Your task to perform on an android device: See recent photos Image 0: 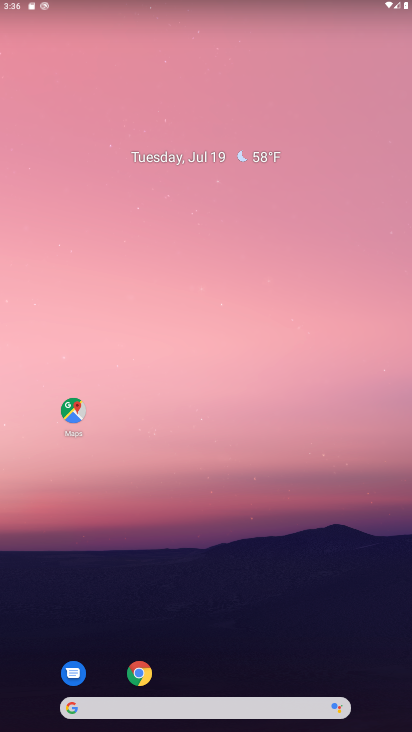
Step 0: drag from (237, 641) to (248, 119)
Your task to perform on an android device: See recent photos Image 1: 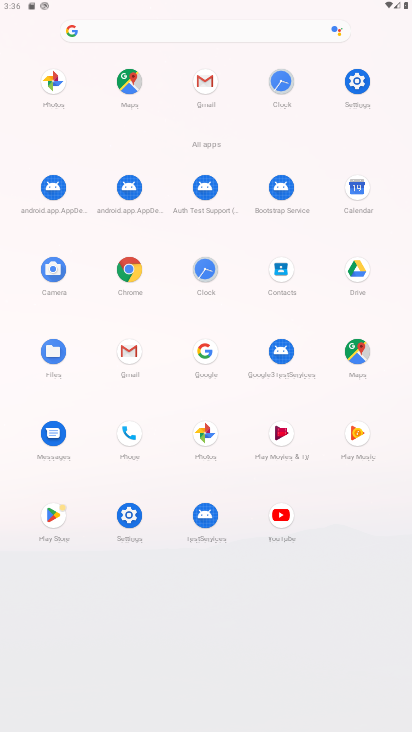
Step 1: click (200, 435)
Your task to perform on an android device: See recent photos Image 2: 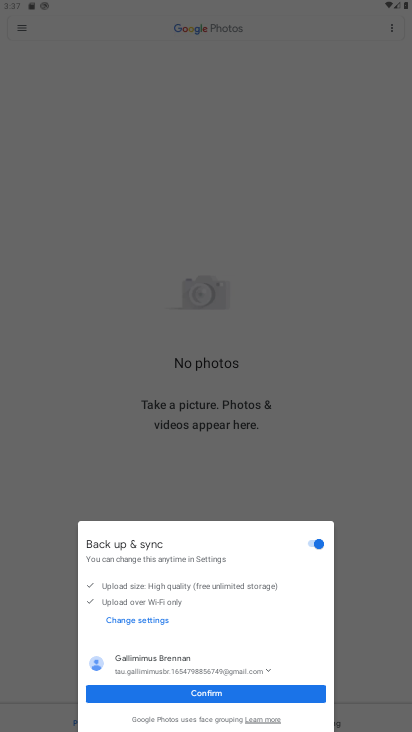
Step 2: click (225, 691)
Your task to perform on an android device: See recent photos Image 3: 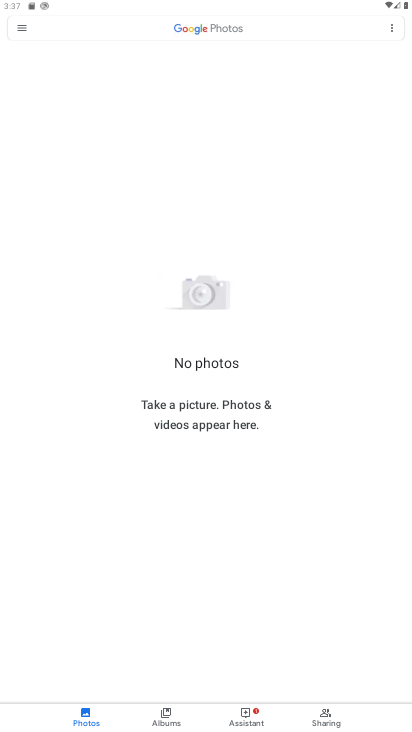
Step 3: task complete